Your task to perform on an android device: Add sony triple a to the cart on amazon Image 0: 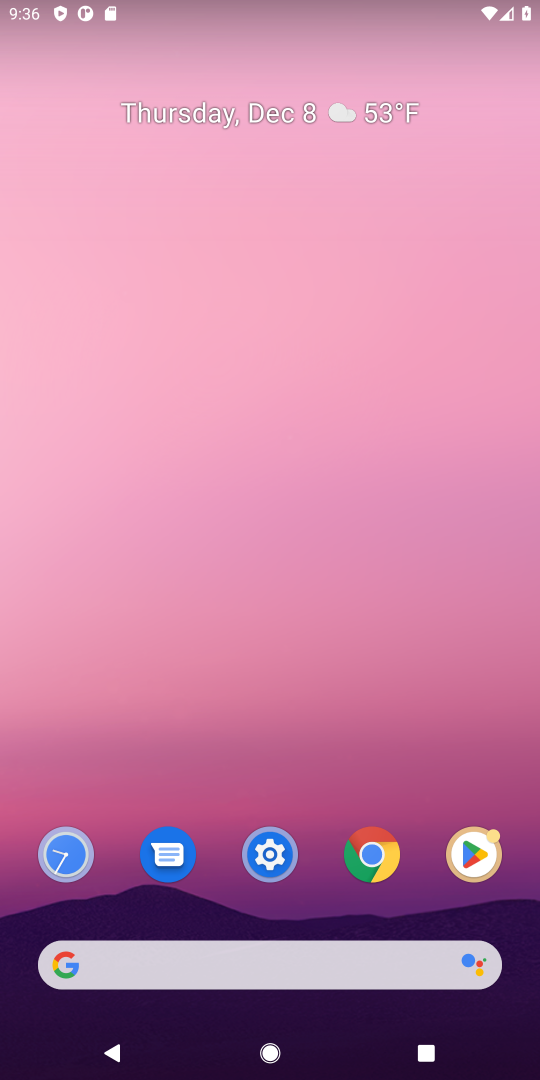
Step 0: press home button
Your task to perform on an android device: Add sony triple a to the cart on amazon Image 1: 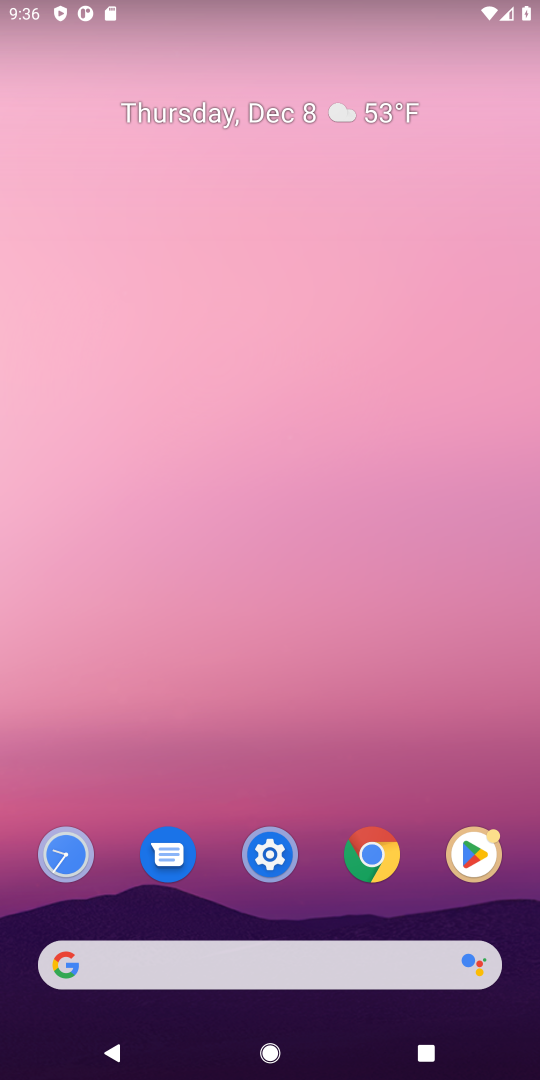
Step 1: click (97, 962)
Your task to perform on an android device: Add sony triple a to the cart on amazon Image 2: 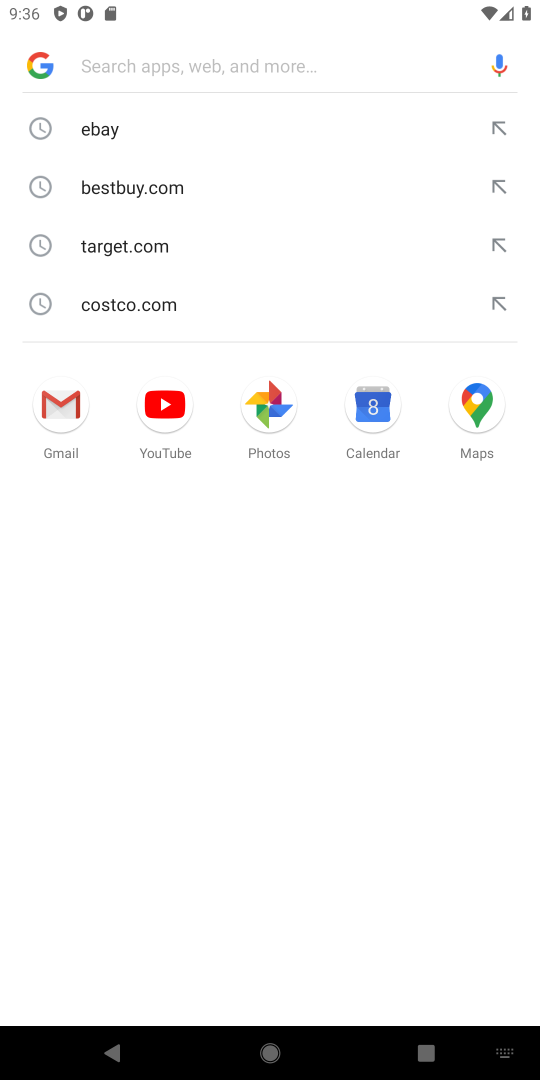
Step 2: type "amazon"
Your task to perform on an android device: Add sony triple a to the cart on amazon Image 3: 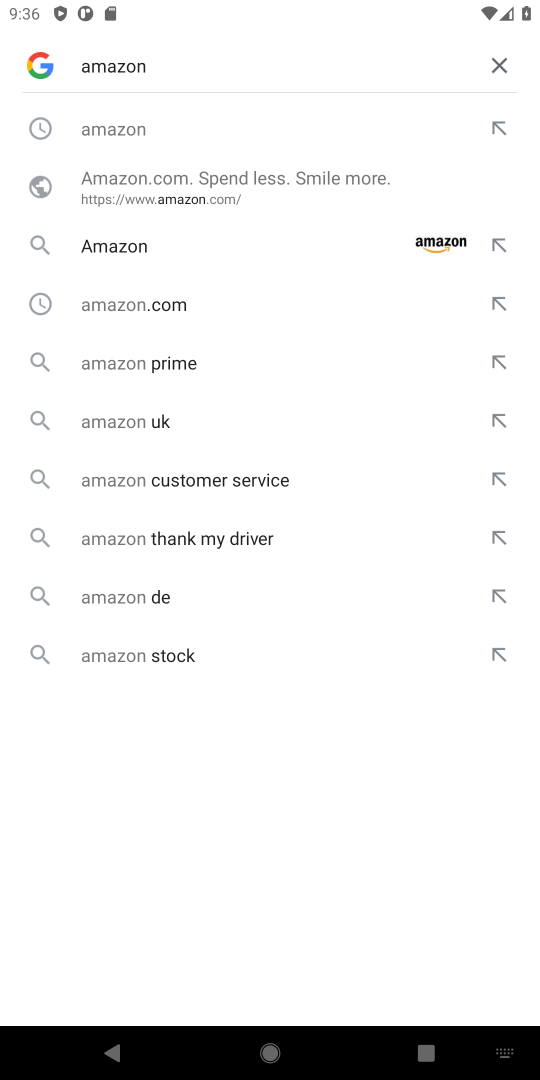
Step 3: press enter
Your task to perform on an android device: Add sony triple a to the cart on amazon Image 4: 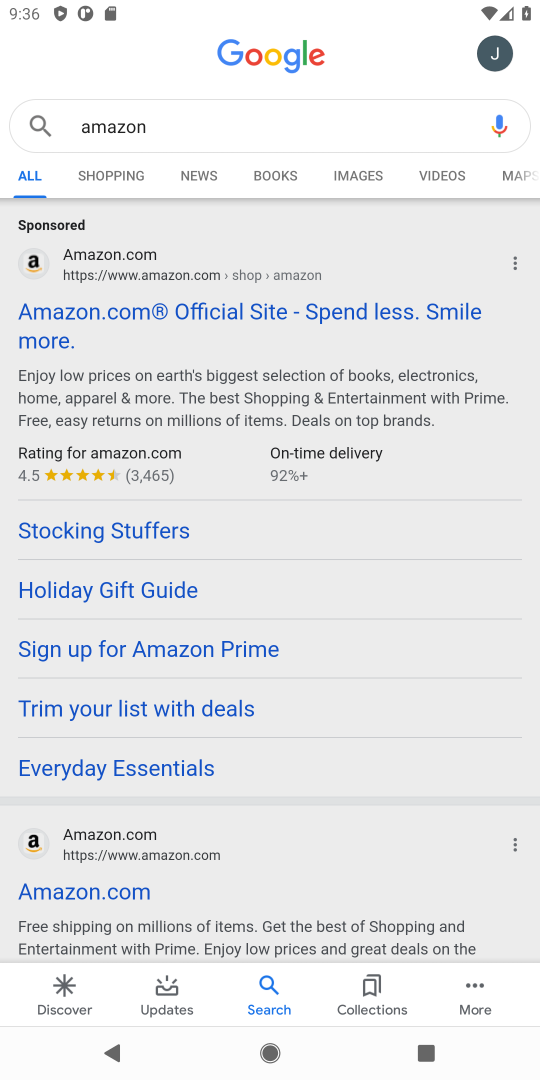
Step 4: click (212, 309)
Your task to perform on an android device: Add sony triple a to the cart on amazon Image 5: 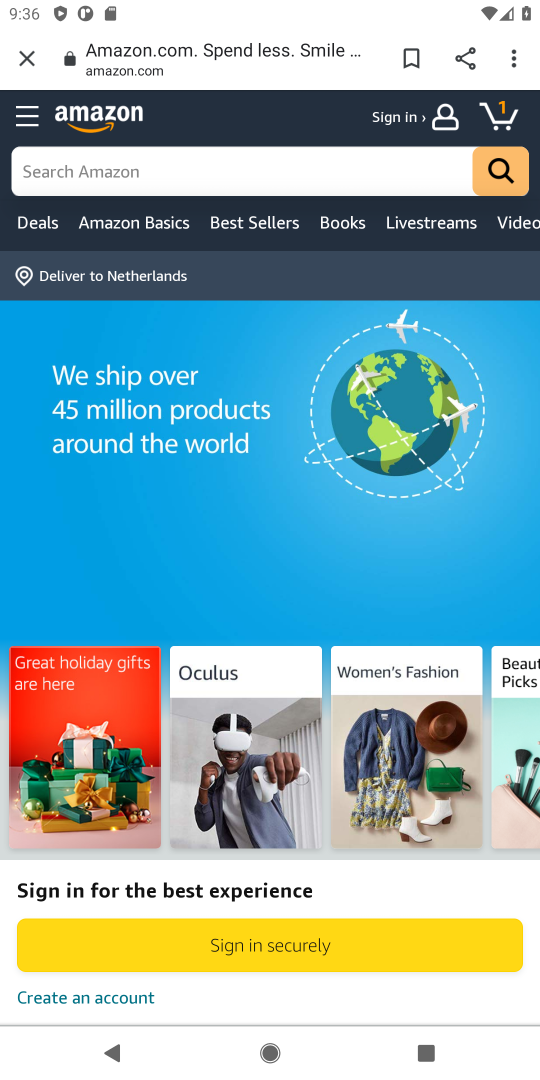
Step 5: click (109, 174)
Your task to perform on an android device: Add sony triple a to the cart on amazon Image 6: 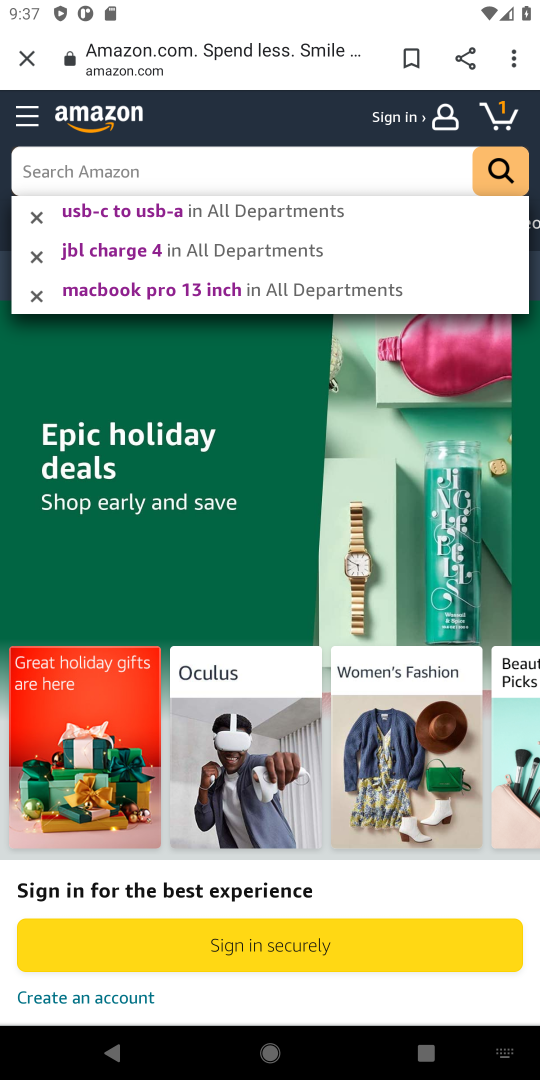
Step 6: type "sony triple a"
Your task to perform on an android device: Add sony triple a to the cart on amazon Image 7: 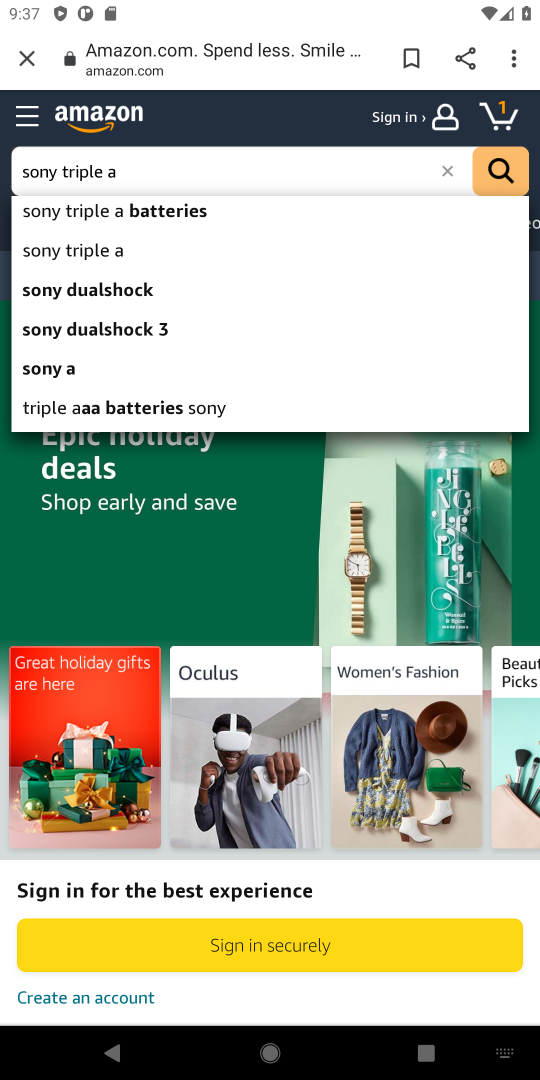
Step 7: click (500, 163)
Your task to perform on an android device: Add sony triple a to the cart on amazon Image 8: 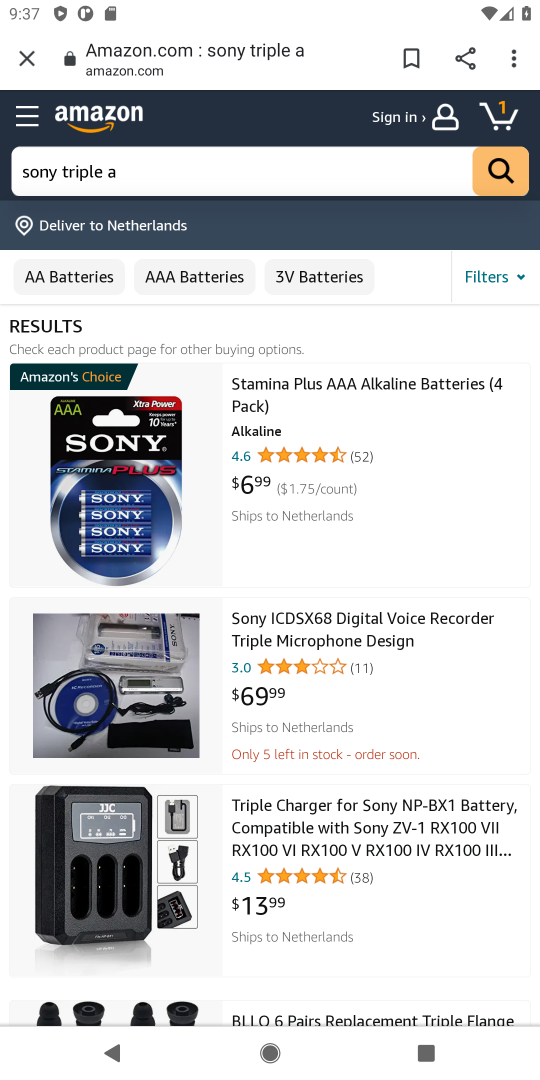
Step 8: task complete